Your task to perform on an android device: Search for seafood restaurants on Google Maps Image 0: 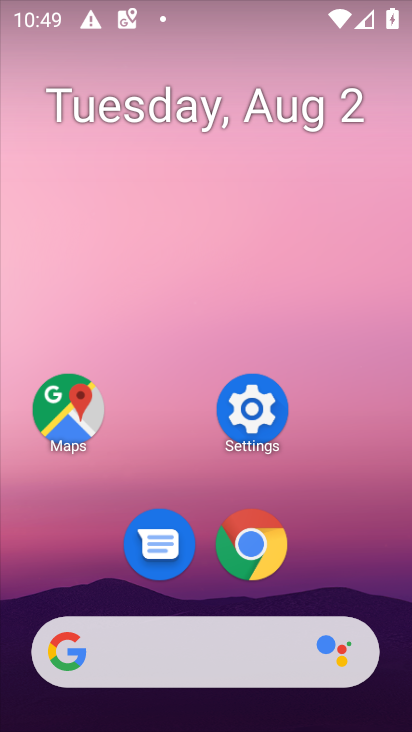
Step 0: press home button
Your task to perform on an android device: Search for seafood restaurants on Google Maps Image 1: 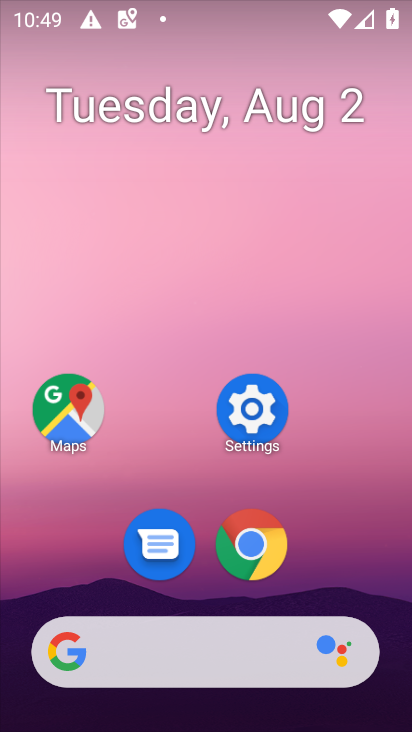
Step 1: click (73, 410)
Your task to perform on an android device: Search for seafood restaurants on Google Maps Image 2: 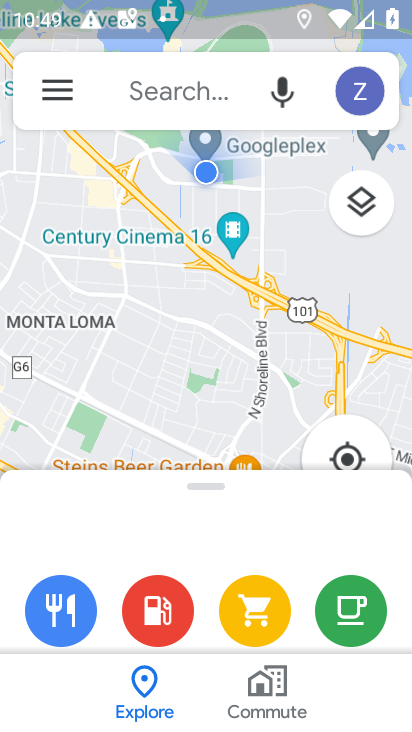
Step 2: click (181, 99)
Your task to perform on an android device: Search for seafood restaurants on Google Maps Image 3: 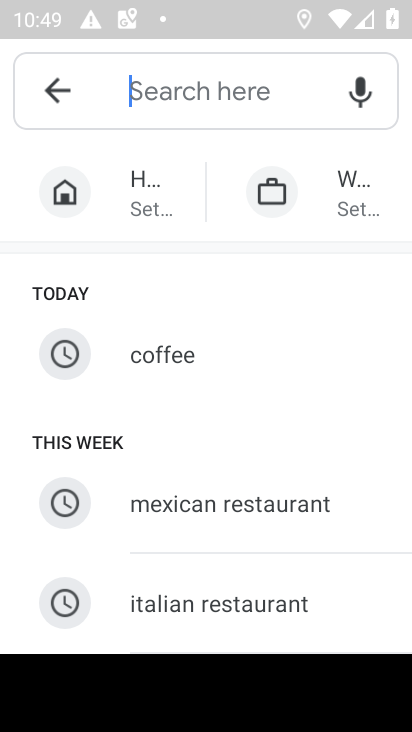
Step 3: drag from (210, 578) to (326, 106)
Your task to perform on an android device: Search for seafood restaurants on Google Maps Image 4: 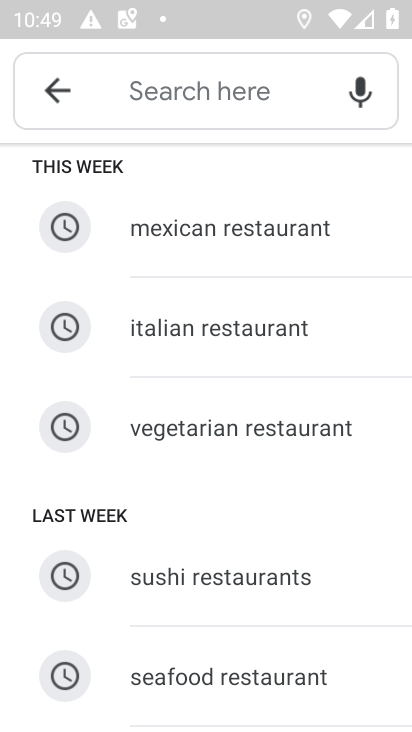
Step 4: click (211, 678)
Your task to perform on an android device: Search for seafood restaurants on Google Maps Image 5: 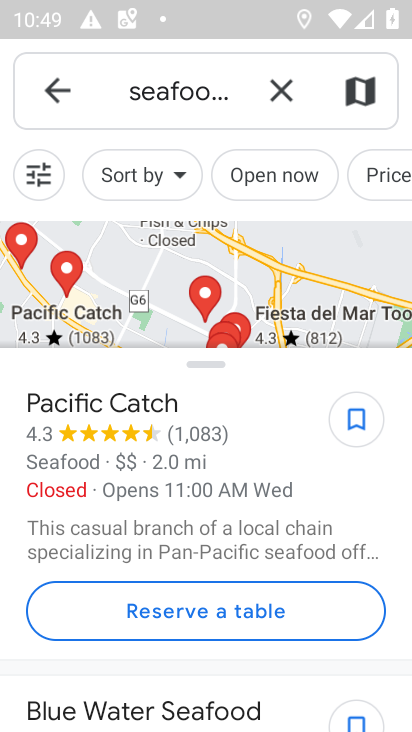
Step 5: task complete